Your task to perform on an android device: Go to sound settings Image 0: 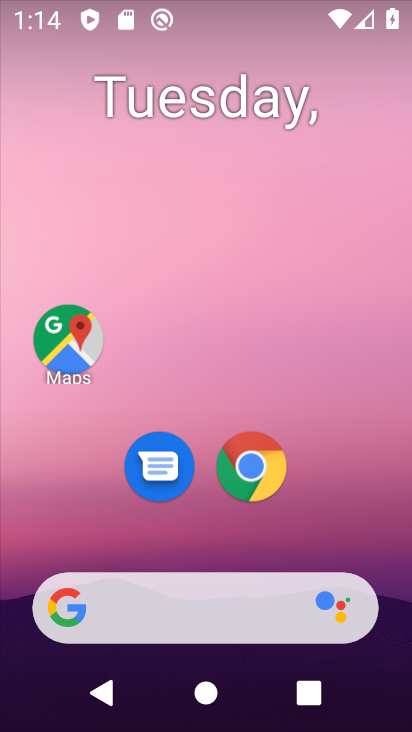
Step 0: drag from (391, 562) to (385, 28)
Your task to perform on an android device: Go to sound settings Image 1: 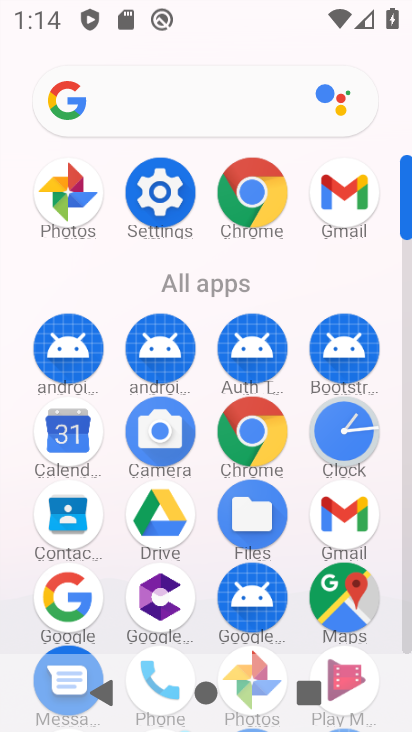
Step 1: click (151, 176)
Your task to perform on an android device: Go to sound settings Image 2: 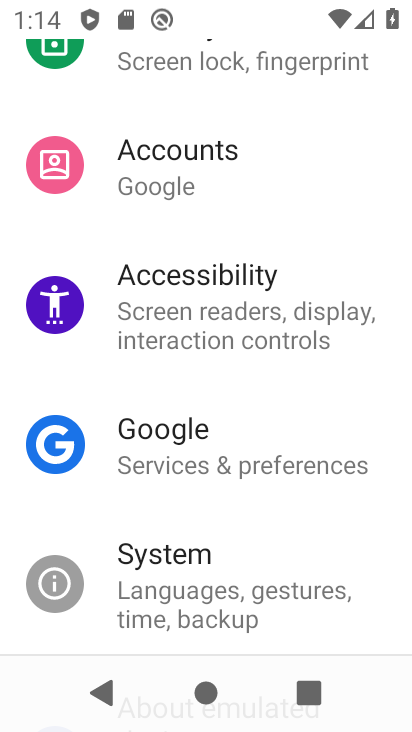
Step 2: drag from (212, 208) to (155, 692)
Your task to perform on an android device: Go to sound settings Image 3: 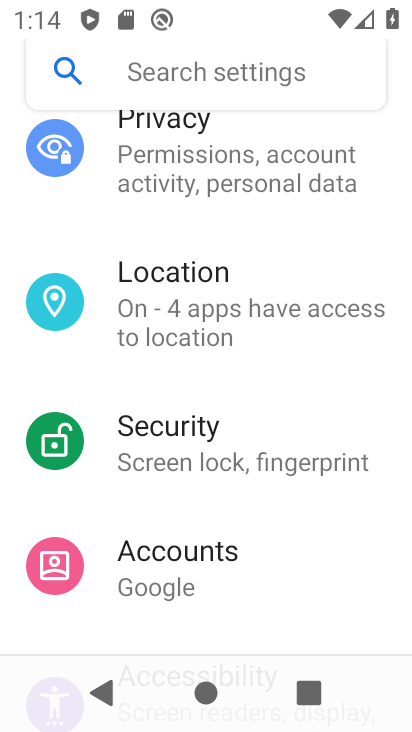
Step 3: drag from (253, 282) to (253, 723)
Your task to perform on an android device: Go to sound settings Image 4: 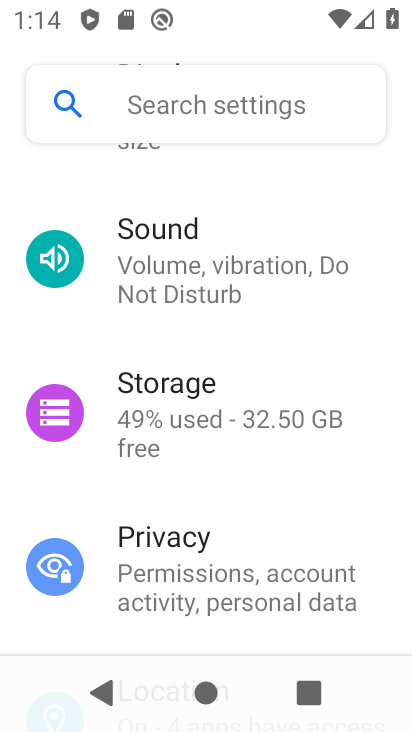
Step 4: click (245, 219)
Your task to perform on an android device: Go to sound settings Image 5: 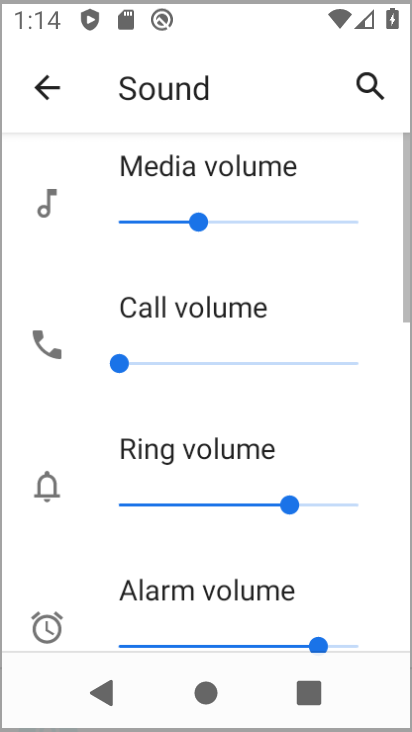
Step 5: task complete